Your task to perform on an android device: Open the web browser Image 0: 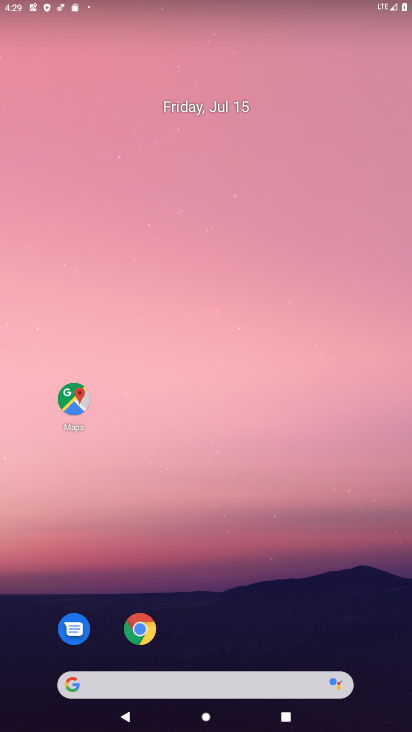
Step 0: click (130, 633)
Your task to perform on an android device: Open the web browser Image 1: 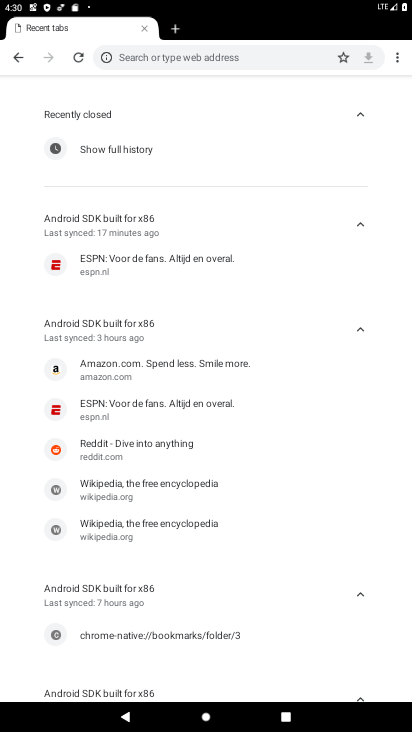
Step 1: task complete